Your task to perform on an android device: open app "Grab" Image 0: 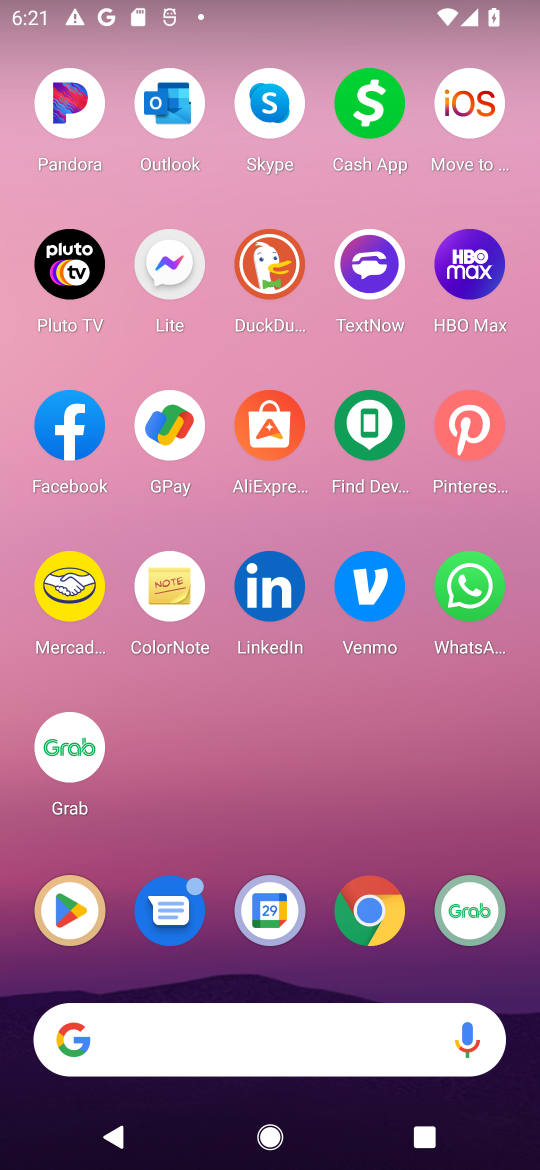
Step 0: click (67, 748)
Your task to perform on an android device: open app "Grab" Image 1: 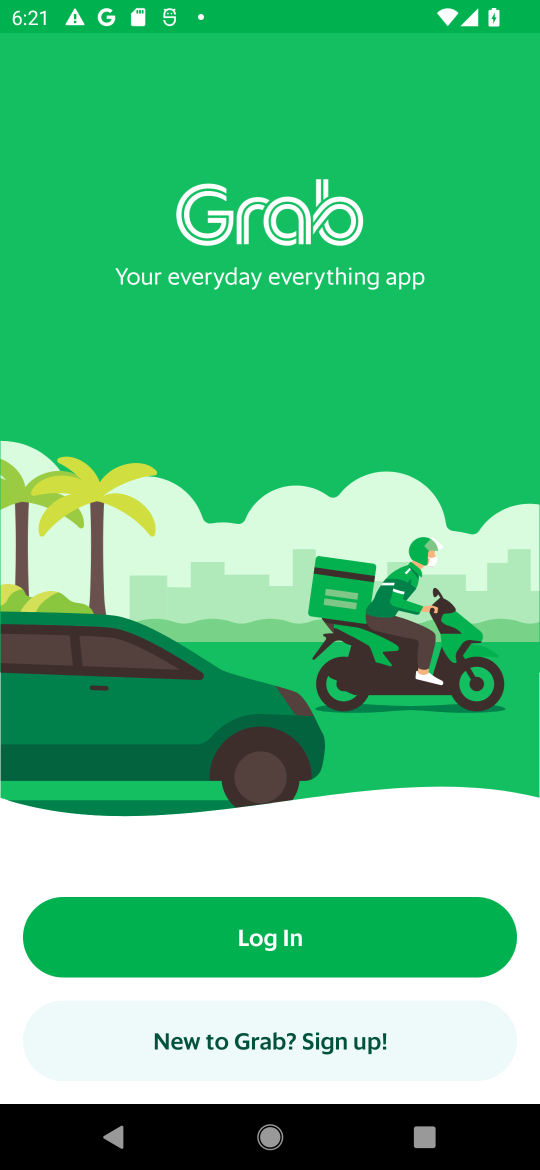
Step 1: task complete